Your task to perform on an android device: uninstall "Google Photos" Image 0: 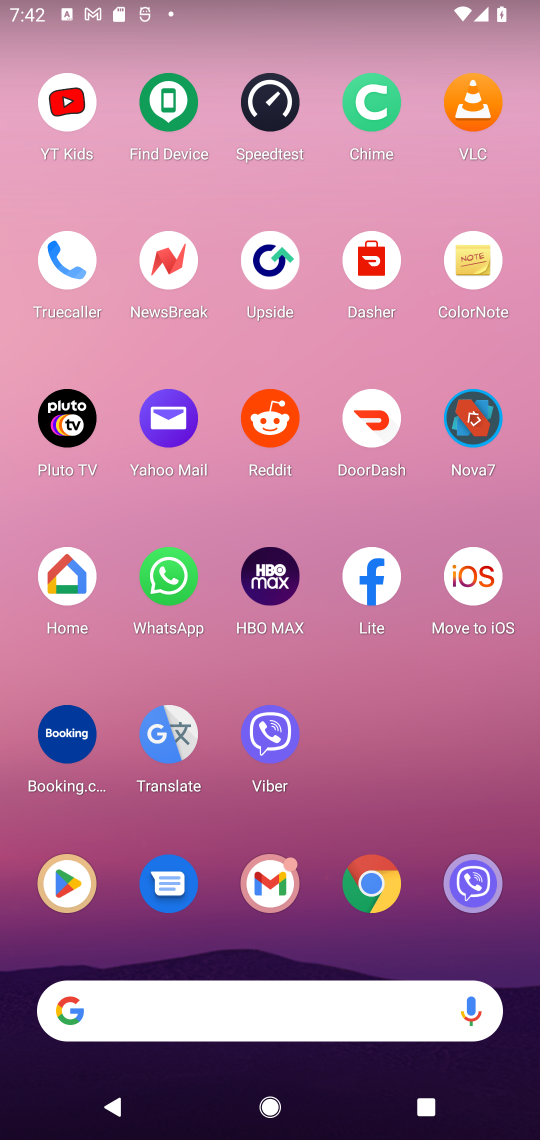
Step 0: click (76, 891)
Your task to perform on an android device: uninstall "Google Photos" Image 1: 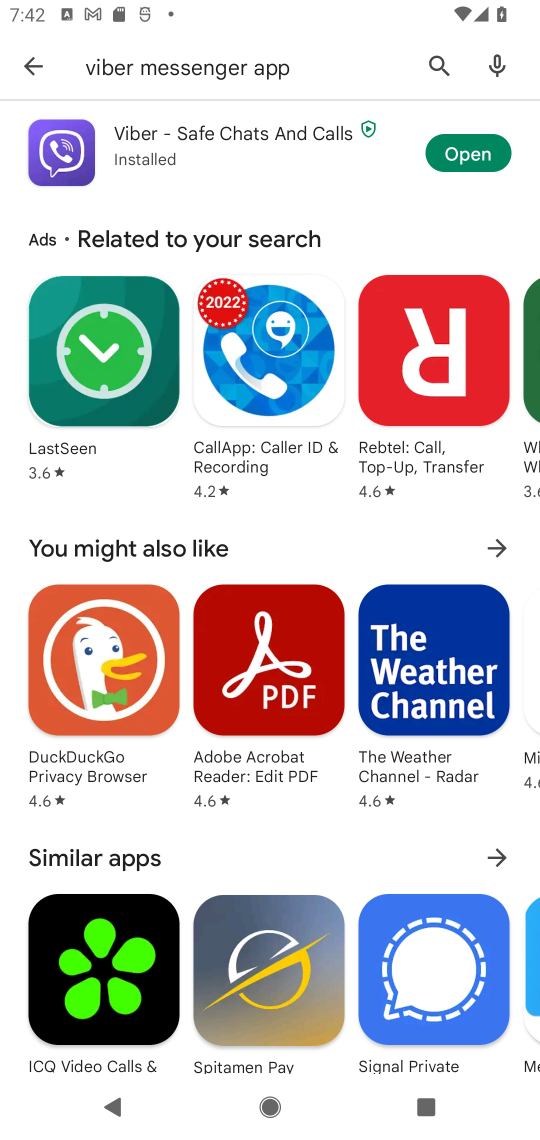
Step 1: click (452, 54)
Your task to perform on an android device: uninstall "Google Photos" Image 2: 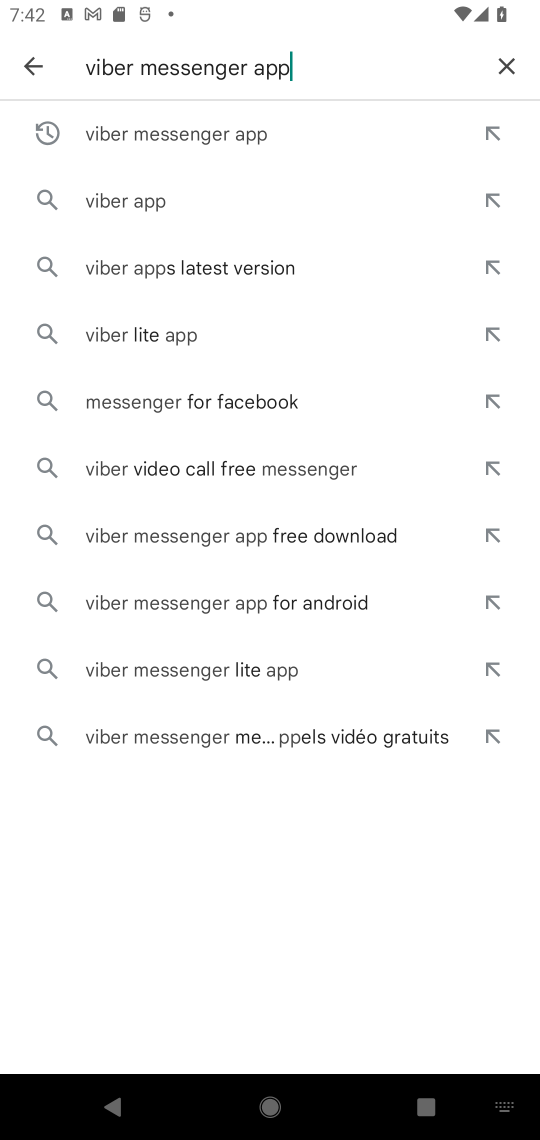
Step 2: click (499, 59)
Your task to perform on an android device: uninstall "Google Photos" Image 3: 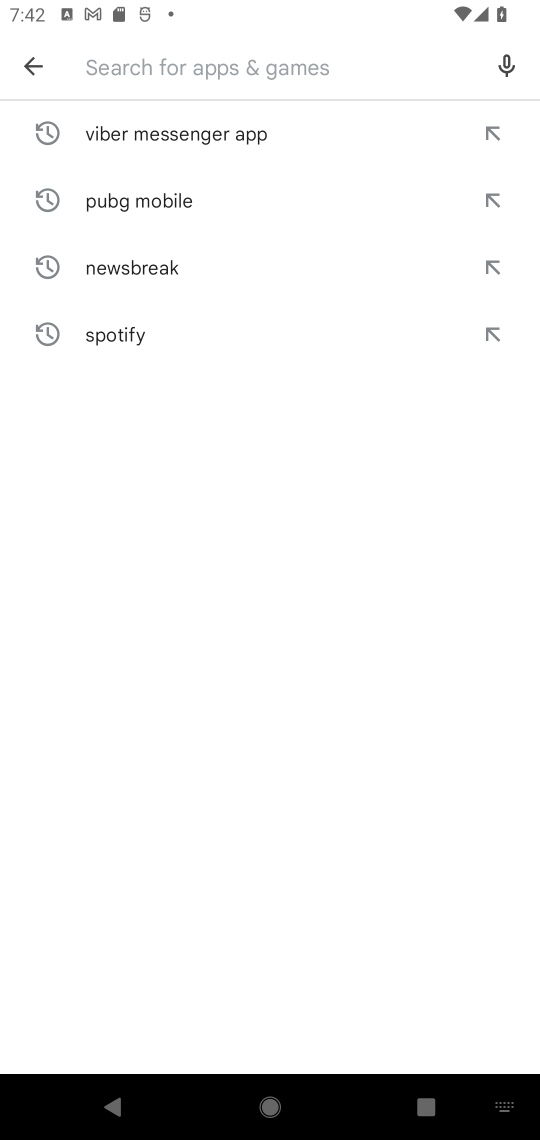
Step 3: click (259, 53)
Your task to perform on an android device: uninstall "Google Photos" Image 4: 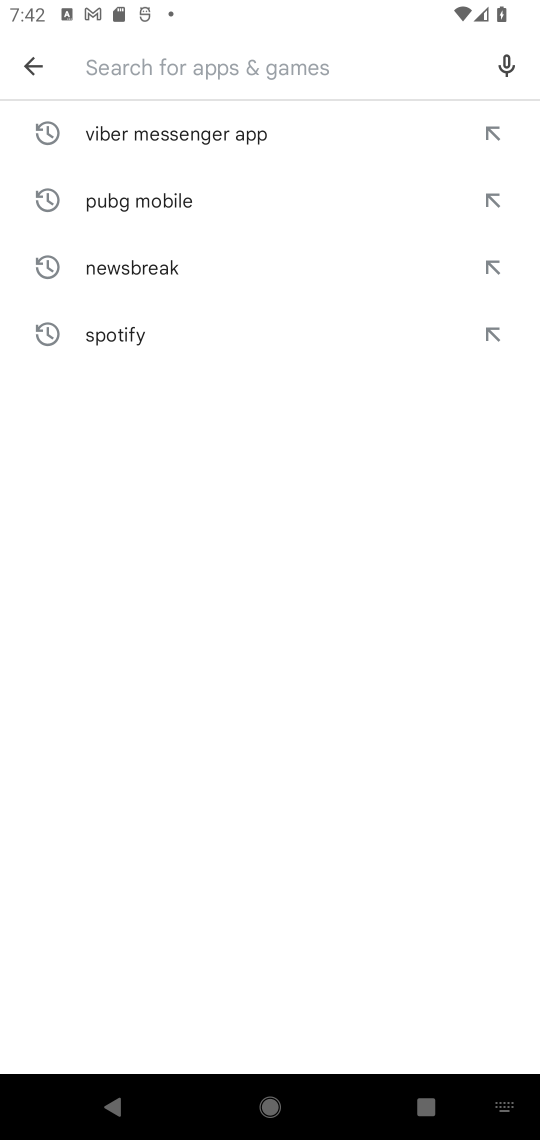
Step 4: type "google photos"
Your task to perform on an android device: uninstall "Google Photos" Image 5: 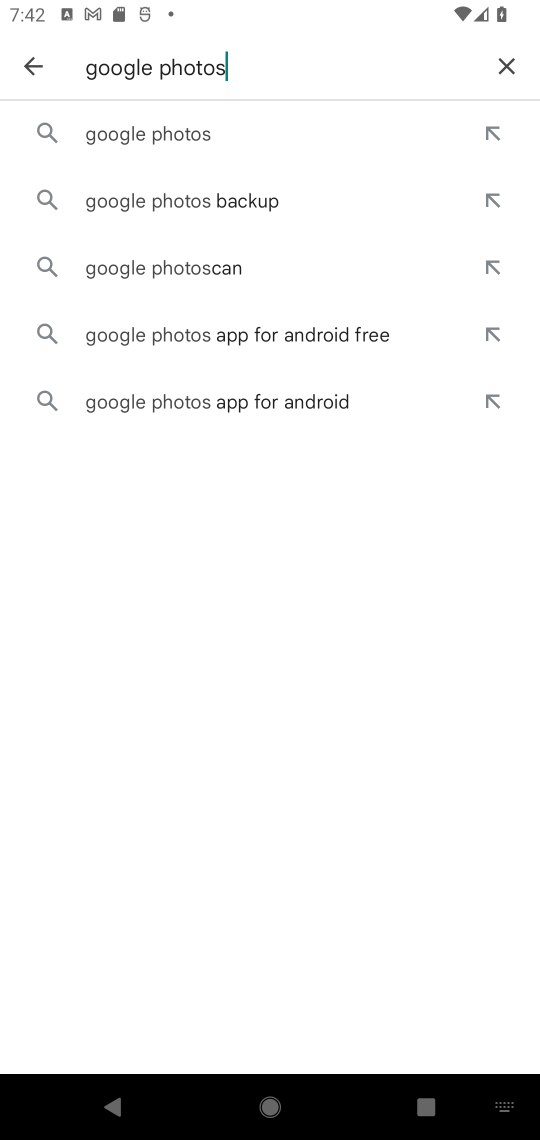
Step 5: click (180, 125)
Your task to perform on an android device: uninstall "Google Photos" Image 6: 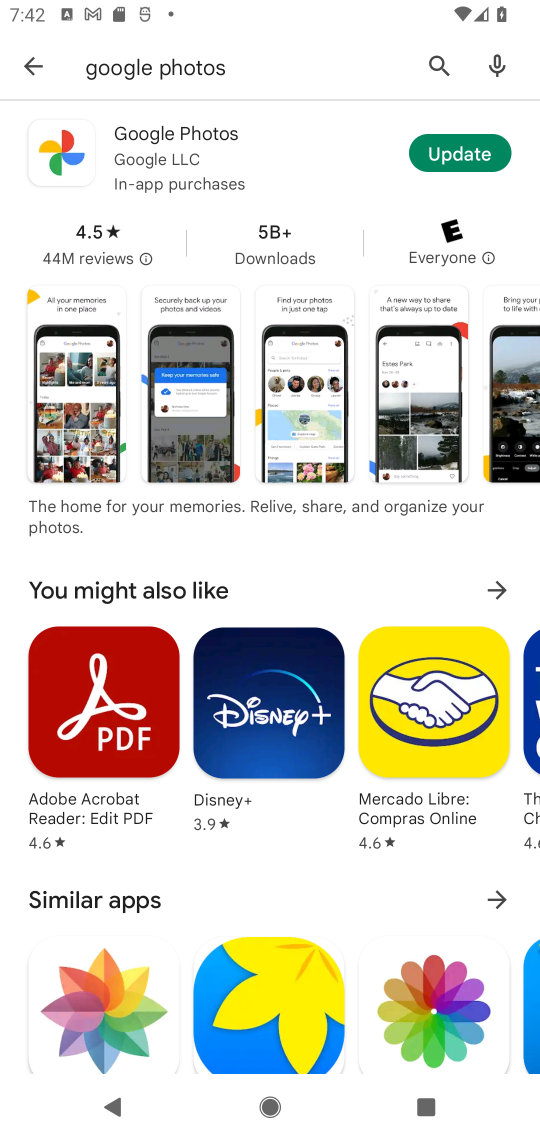
Step 6: click (153, 164)
Your task to perform on an android device: uninstall "Google Photos" Image 7: 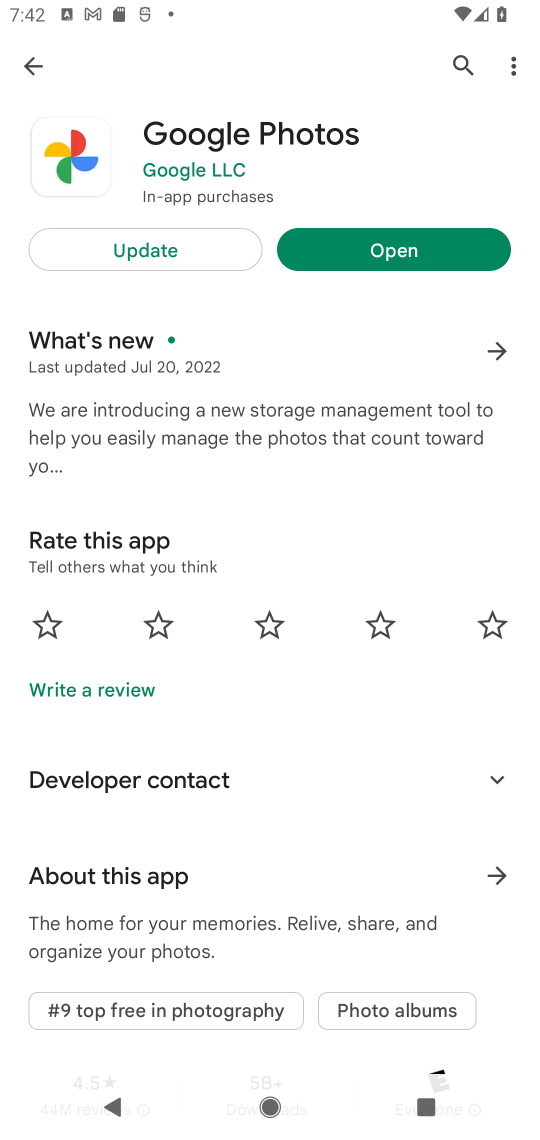
Step 7: task complete